Your task to perform on an android device: turn on improve location accuracy Image 0: 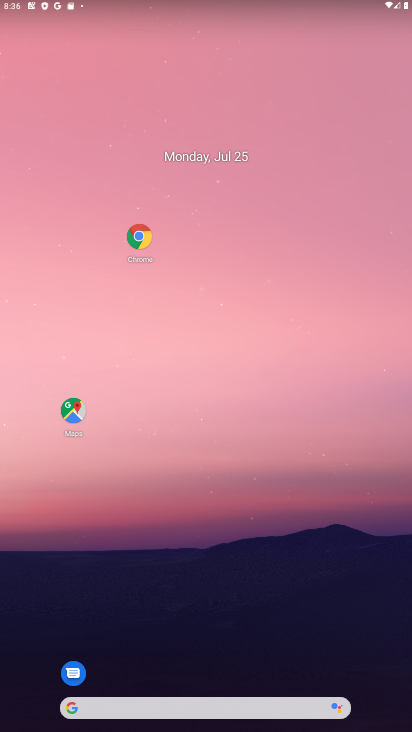
Step 0: drag from (278, 659) to (288, 24)
Your task to perform on an android device: turn on improve location accuracy Image 1: 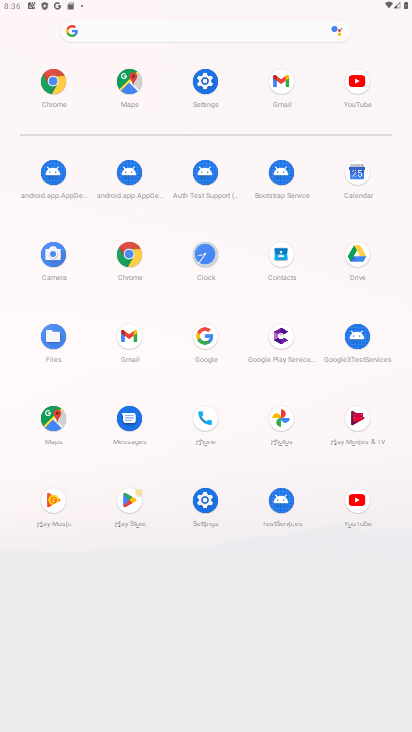
Step 1: click (231, 88)
Your task to perform on an android device: turn on improve location accuracy Image 2: 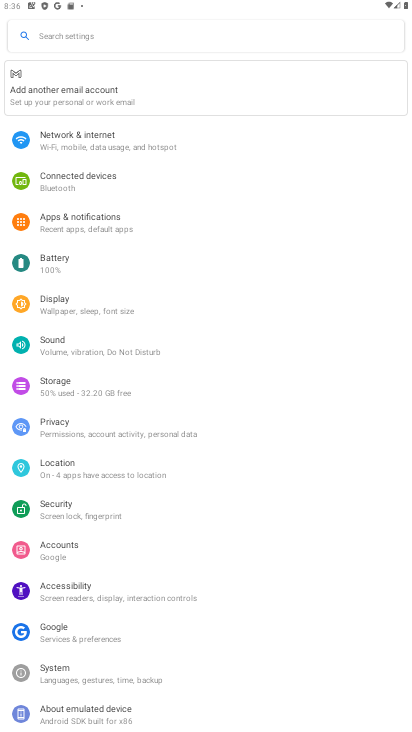
Step 2: click (128, 456)
Your task to perform on an android device: turn on improve location accuracy Image 3: 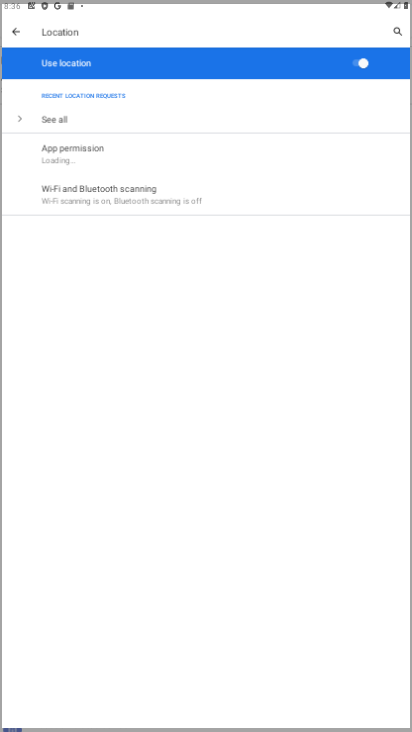
Step 3: task complete